Your task to perform on an android device: Search for pizza restaurants on Maps Image 0: 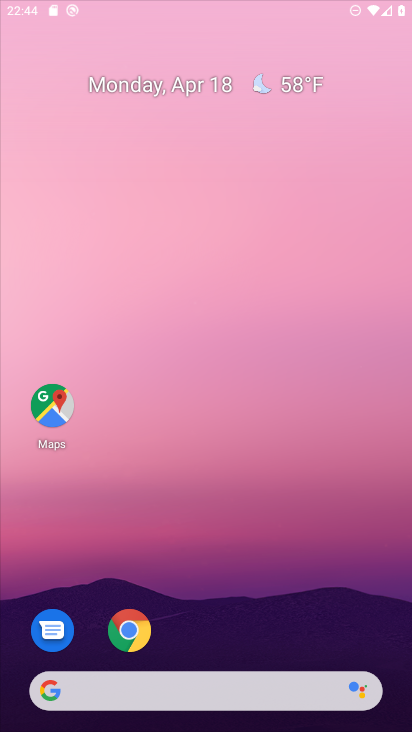
Step 0: drag from (232, 661) to (142, 48)
Your task to perform on an android device: Search for pizza restaurants on Maps Image 1: 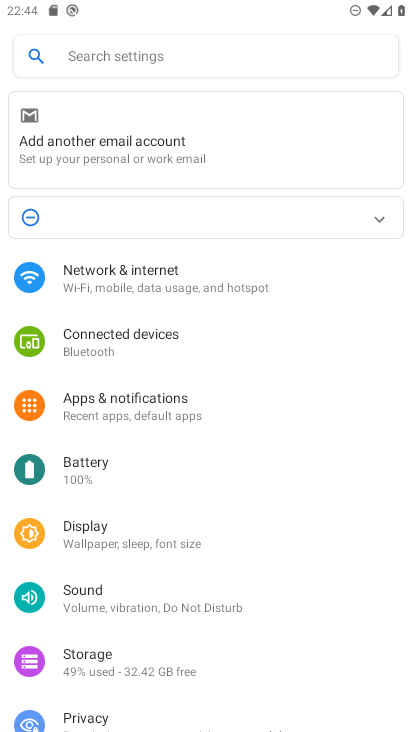
Step 1: press home button
Your task to perform on an android device: Search for pizza restaurants on Maps Image 2: 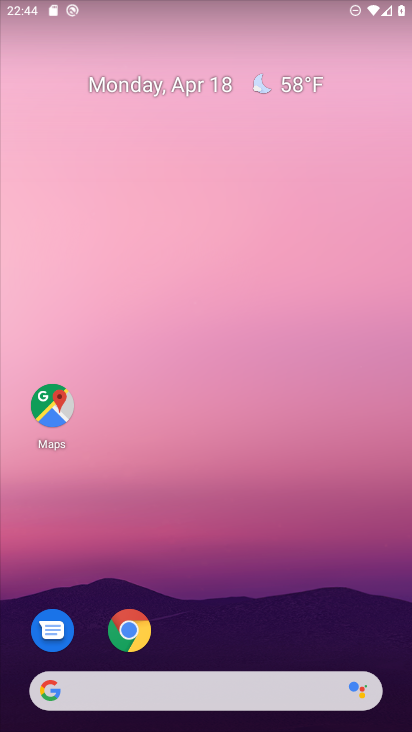
Step 2: click (45, 408)
Your task to perform on an android device: Search for pizza restaurants on Maps Image 3: 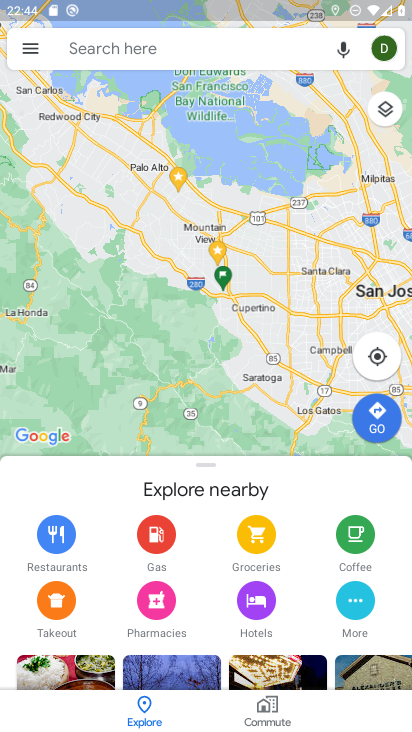
Step 3: click (153, 57)
Your task to perform on an android device: Search for pizza restaurants on Maps Image 4: 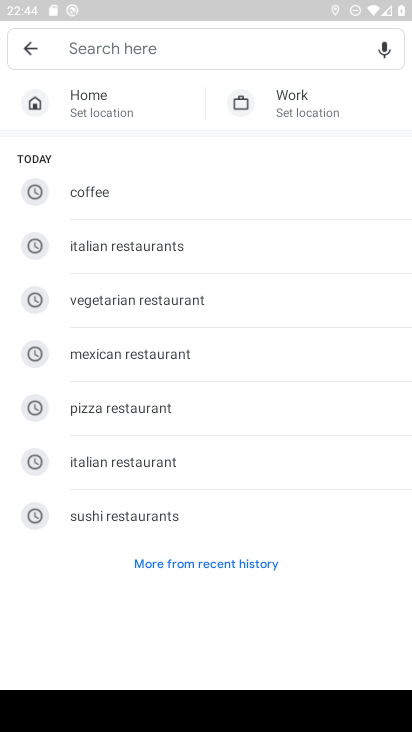
Step 4: click (134, 399)
Your task to perform on an android device: Search for pizza restaurants on Maps Image 5: 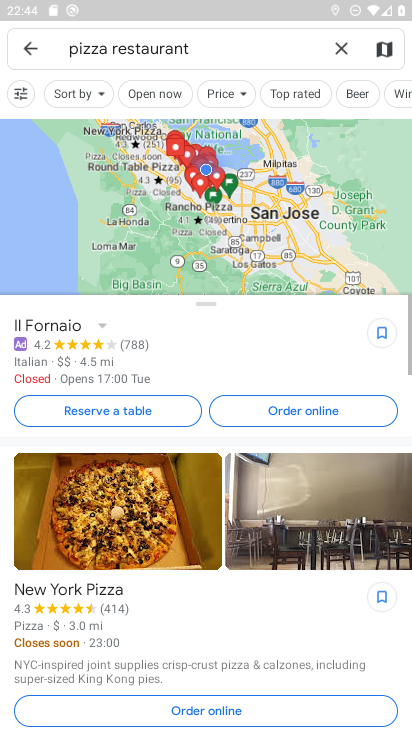
Step 5: task complete